Your task to perform on an android device: Open Youtube and go to the subscriptions tab Image 0: 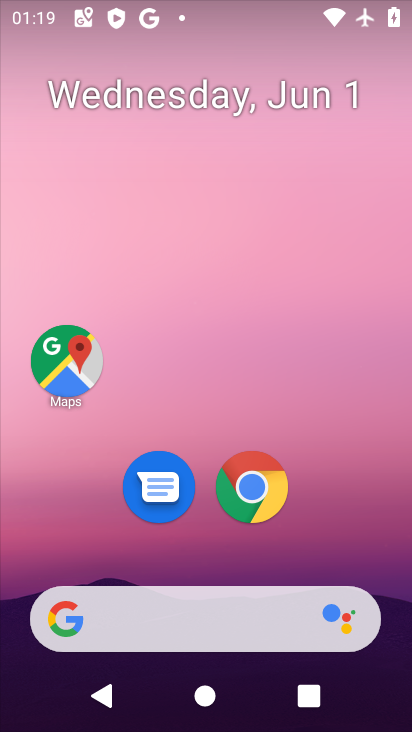
Step 0: drag from (306, 567) to (277, 154)
Your task to perform on an android device: Open Youtube and go to the subscriptions tab Image 1: 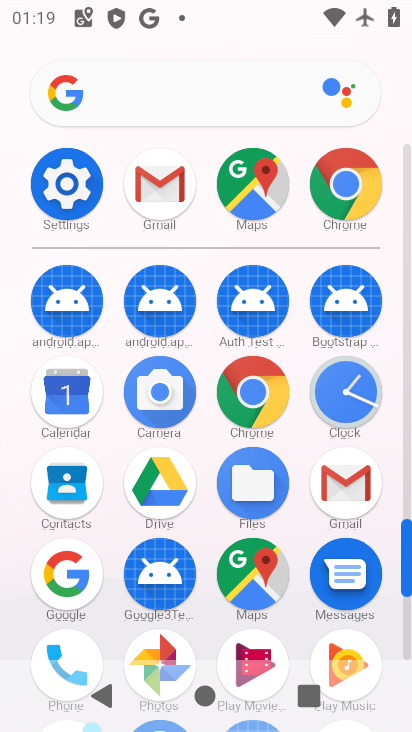
Step 1: drag from (310, 645) to (297, 318)
Your task to perform on an android device: Open Youtube and go to the subscriptions tab Image 2: 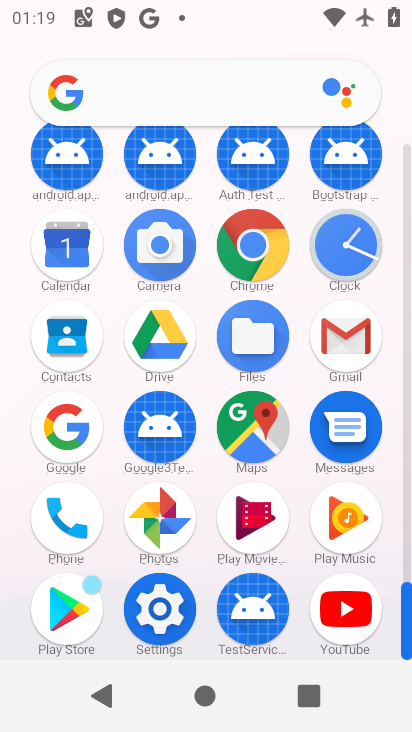
Step 2: click (324, 607)
Your task to perform on an android device: Open Youtube and go to the subscriptions tab Image 3: 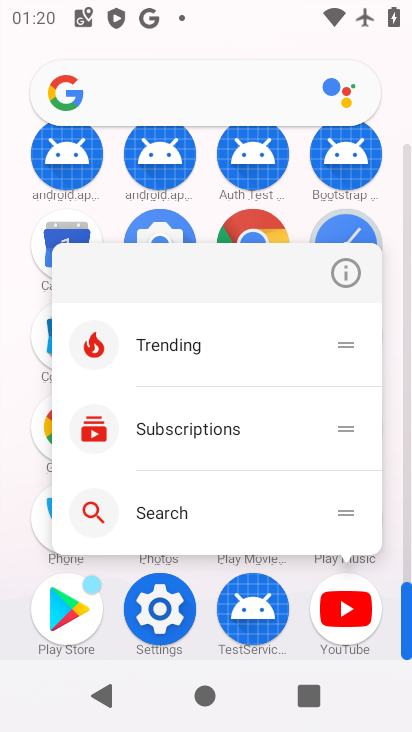
Step 3: click (336, 605)
Your task to perform on an android device: Open Youtube and go to the subscriptions tab Image 4: 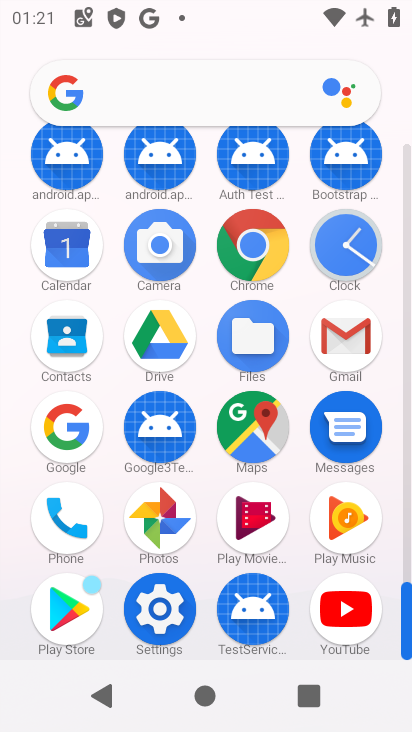
Step 4: click (333, 582)
Your task to perform on an android device: Open Youtube and go to the subscriptions tab Image 5: 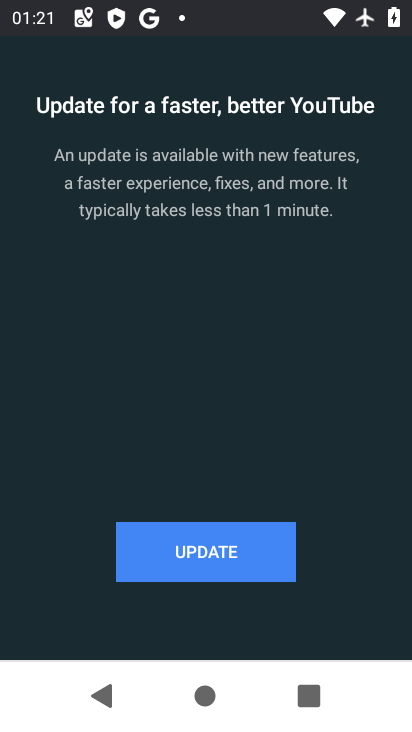
Step 5: task complete